Your task to perform on an android device: turn off picture-in-picture Image 0: 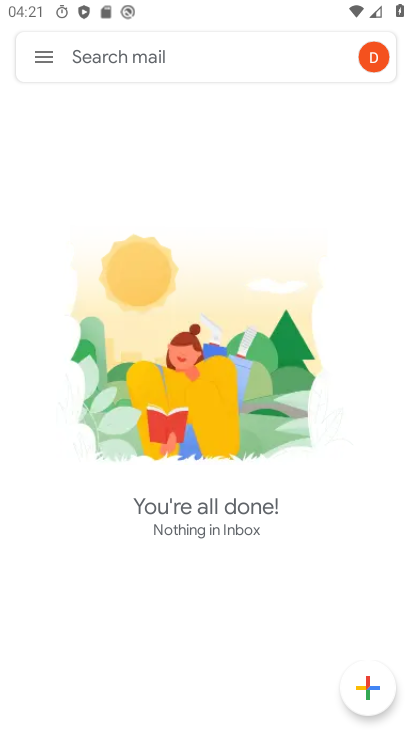
Step 0: press home button
Your task to perform on an android device: turn off picture-in-picture Image 1: 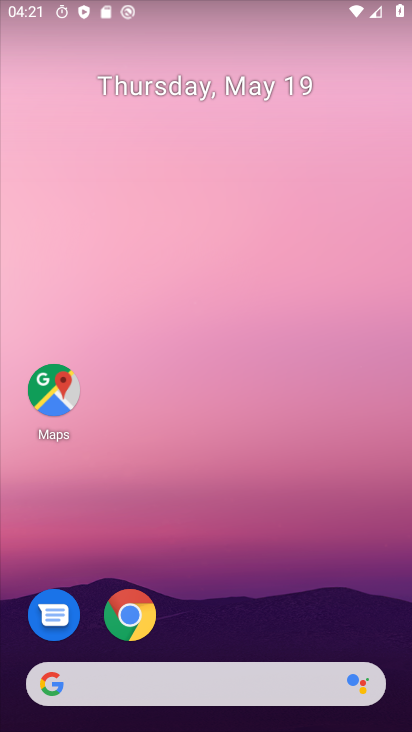
Step 1: click (141, 619)
Your task to perform on an android device: turn off picture-in-picture Image 2: 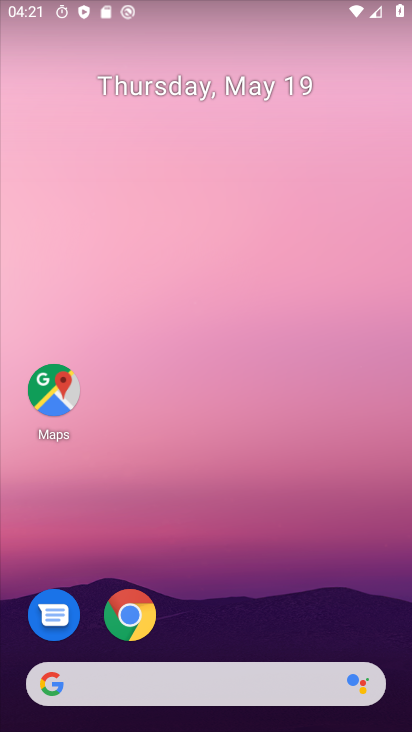
Step 2: click (252, 439)
Your task to perform on an android device: turn off picture-in-picture Image 3: 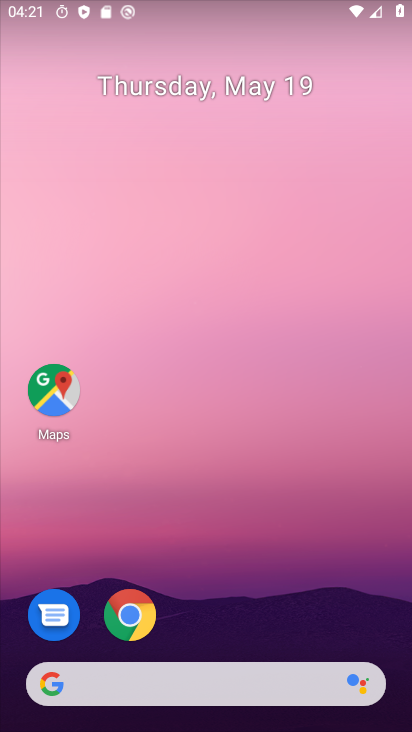
Step 3: click (138, 613)
Your task to perform on an android device: turn off picture-in-picture Image 4: 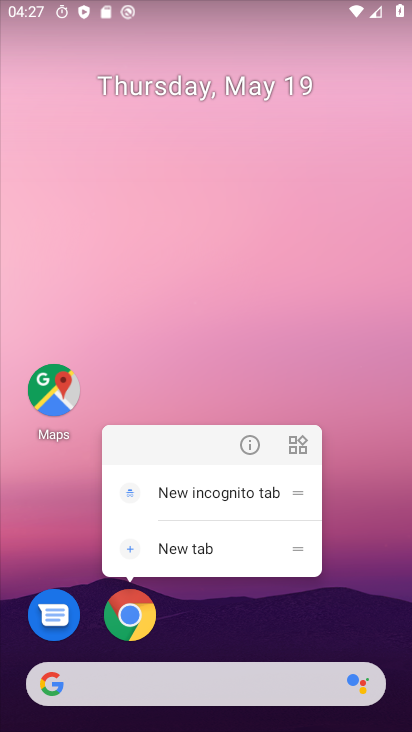
Step 4: click (246, 448)
Your task to perform on an android device: turn off picture-in-picture Image 5: 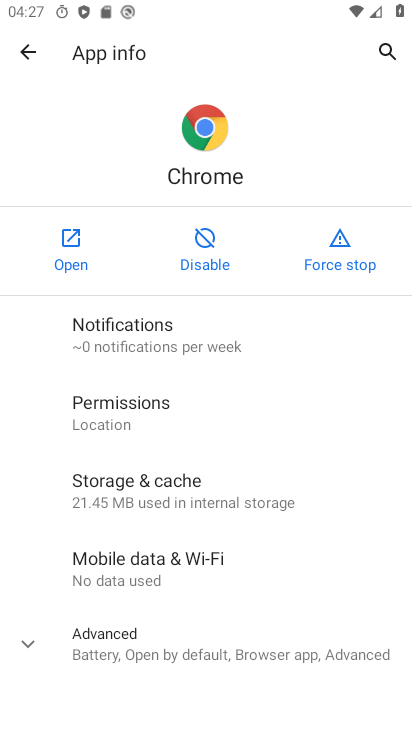
Step 5: drag from (199, 571) to (270, 375)
Your task to perform on an android device: turn off picture-in-picture Image 6: 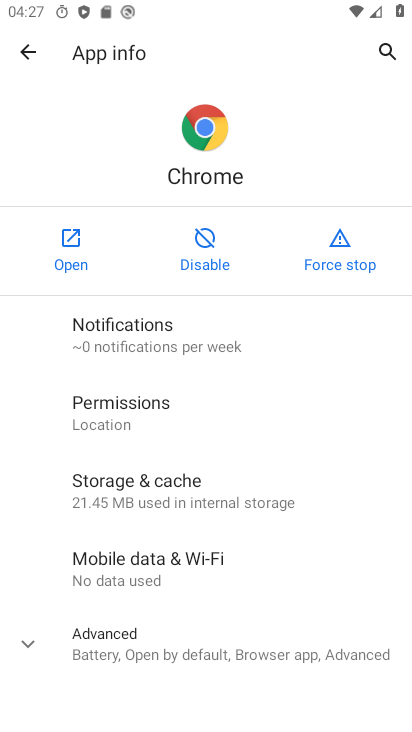
Step 6: drag from (202, 531) to (227, 132)
Your task to perform on an android device: turn off picture-in-picture Image 7: 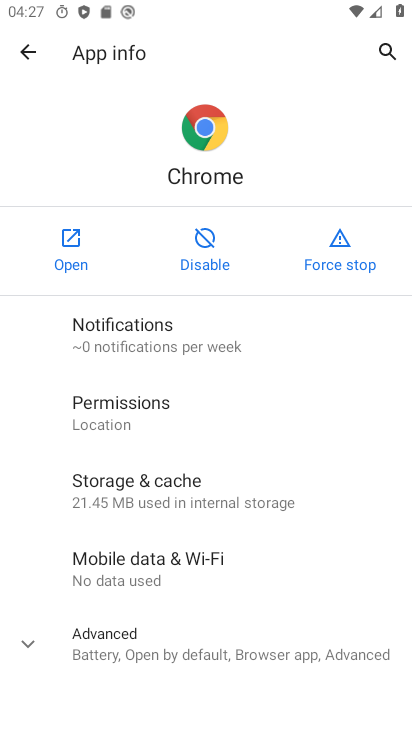
Step 7: click (30, 650)
Your task to perform on an android device: turn off picture-in-picture Image 8: 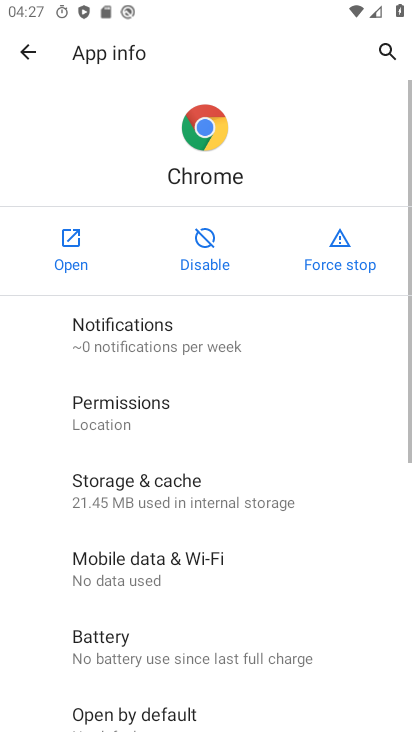
Step 8: drag from (150, 633) to (215, 221)
Your task to perform on an android device: turn off picture-in-picture Image 9: 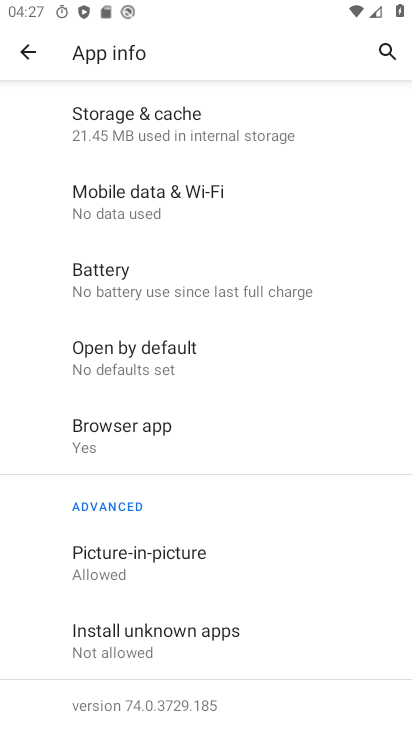
Step 9: click (148, 547)
Your task to perform on an android device: turn off picture-in-picture Image 10: 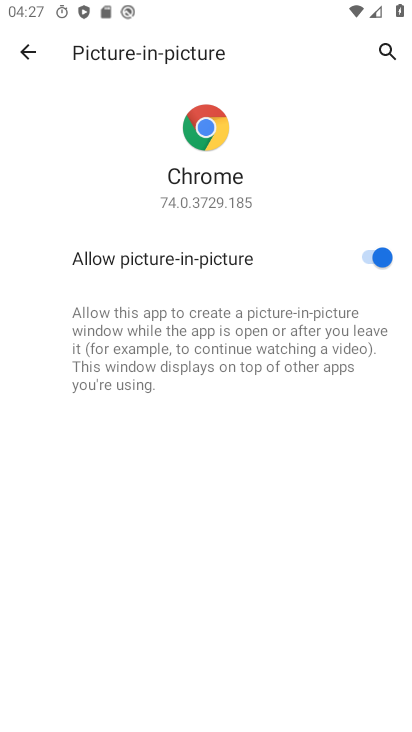
Step 10: click (368, 262)
Your task to perform on an android device: turn off picture-in-picture Image 11: 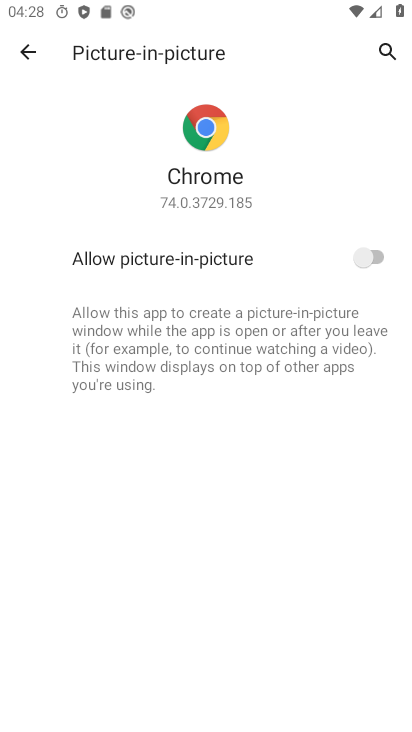
Step 11: task complete